Your task to perform on an android device: What's on my calendar tomorrow? Image 0: 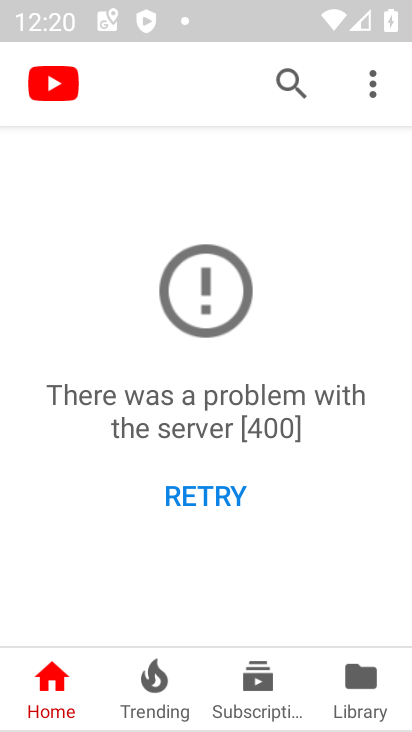
Step 0: press home button
Your task to perform on an android device: What's on my calendar tomorrow? Image 1: 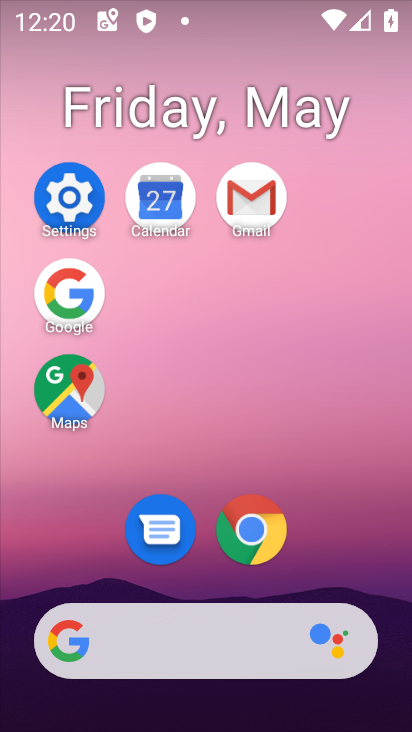
Step 1: click (165, 211)
Your task to perform on an android device: What's on my calendar tomorrow? Image 2: 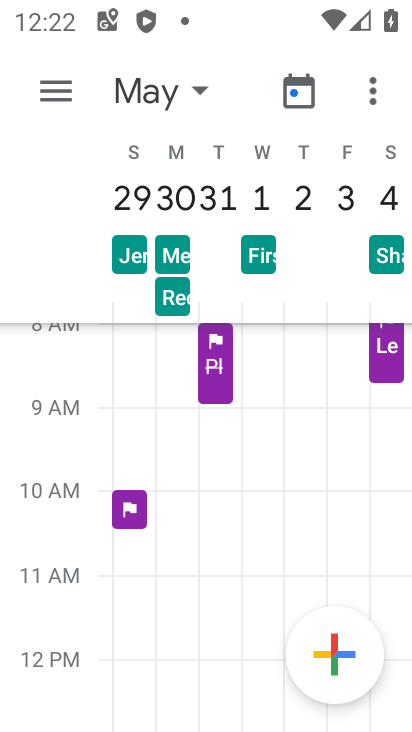
Step 2: click (120, 209)
Your task to perform on an android device: What's on my calendar tomorrow? Image 3: 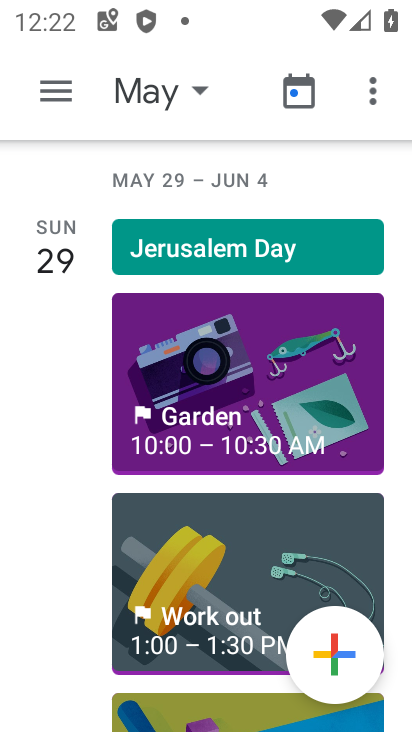
Step 3: task complete